Your task to perform on an android device: turn smart compose on in the gmail app Image 0: 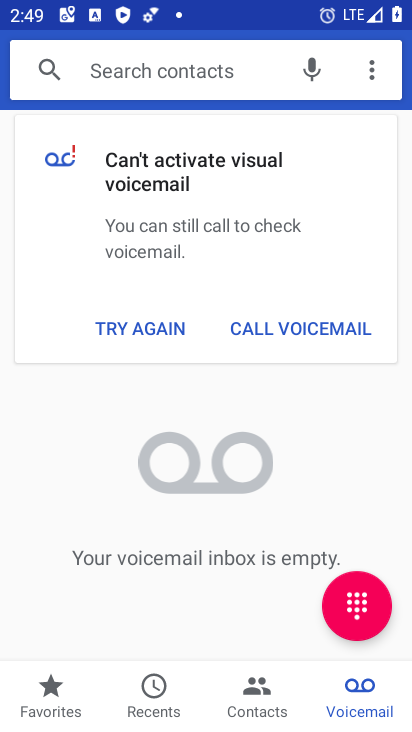
Step 0: press home button
Your task to perform on an android device: turn smart compose on in the gmail app Image 1: 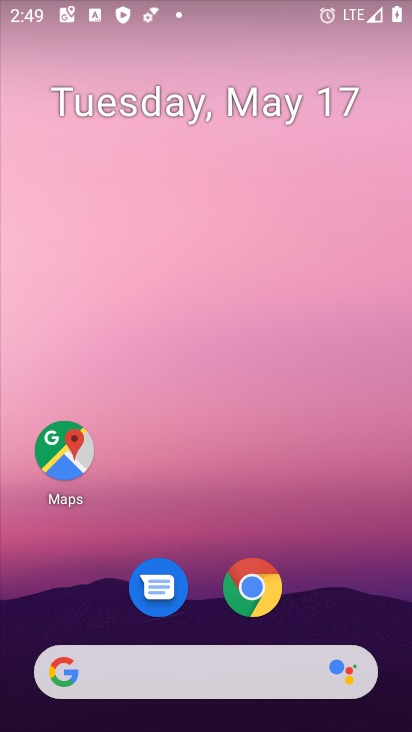
Step 1: drag from (200, 615) to (231, 287)
Your task to perform on an android device: turn smart compose on in the gmail app Image 2: 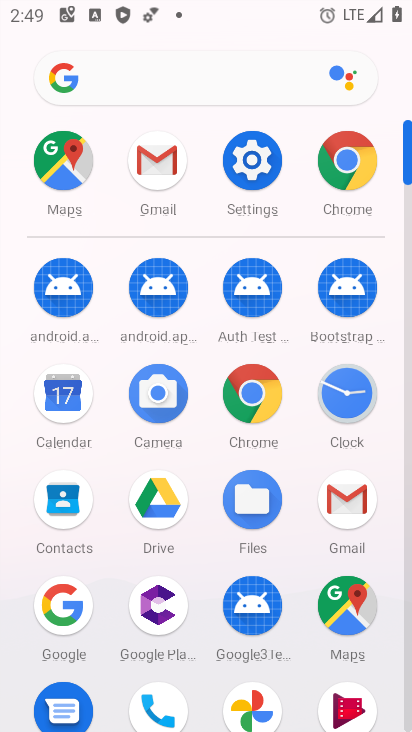
Step 2: click (350, 510)
Your task to perform on an android device: turn smart compose on in the gmail app Image 3: 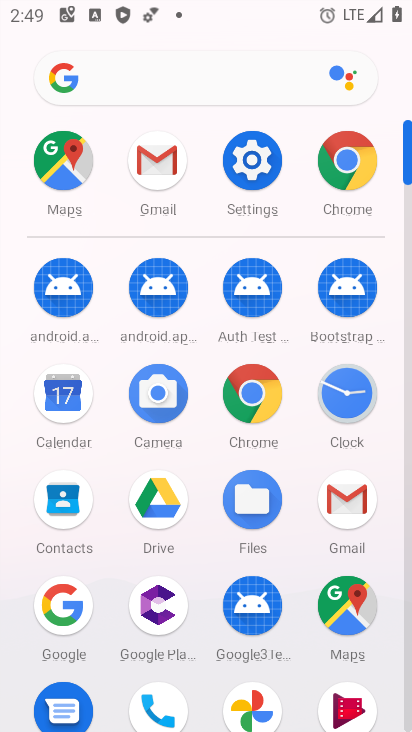
Step 3: click (350, 510)
Your task to perform on an android device: turn smart compose on in the gmail app Image 4: 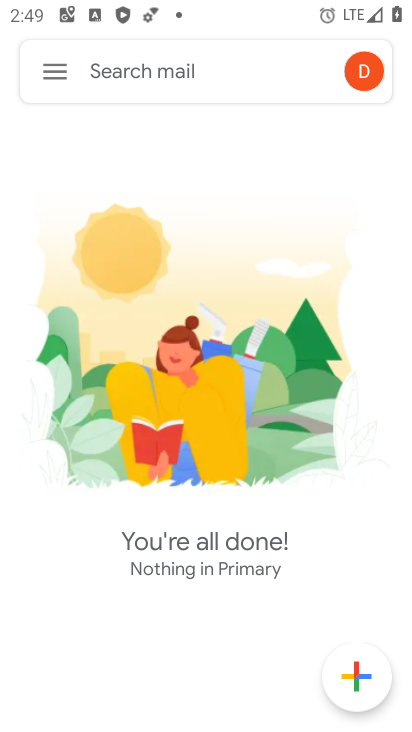
Step 4: click (40, 83)
Your task to perform on an android device: turn smart compose on in the gmail app Image 5: 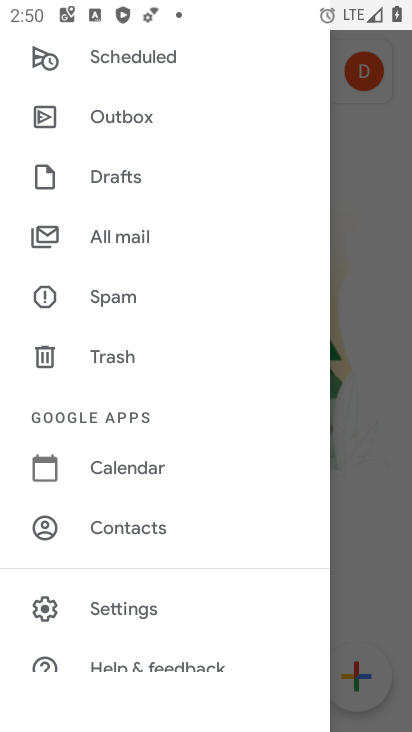
Step 5: drag from (169, 555) to (216, 229)
Your task to perform on an android device: turn smart compose on in the gmail app Image 6: 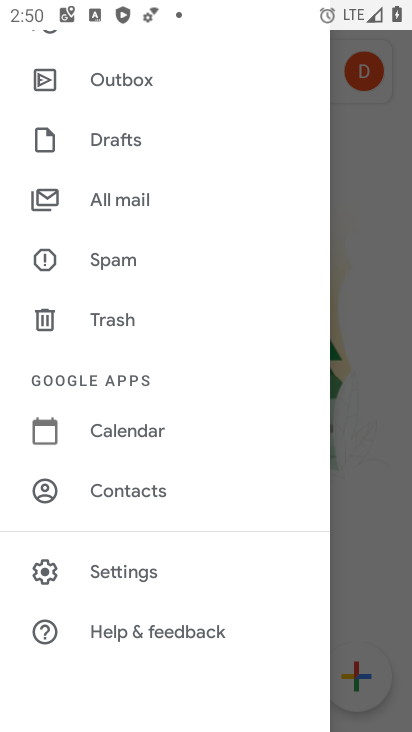
Step 6: click (155, 570)
Your task to perform on an android device: turn smart compose on in the gmail app Image 7: 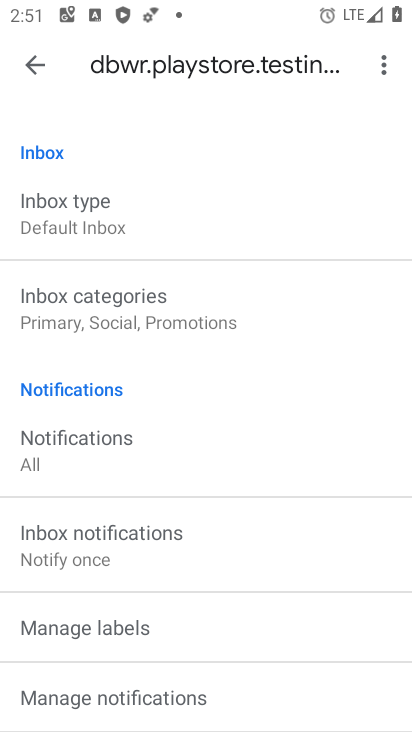
Step 7: task complete